Your task to perform on an android device: install app "HBO Max: Stream TV & Movies" Image 0: 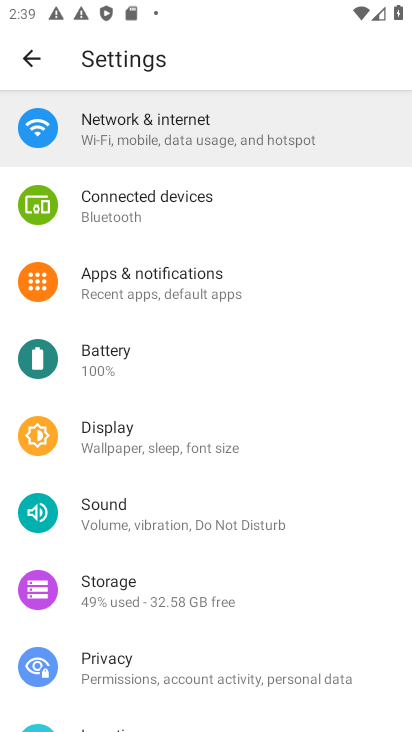
Step 0: press home button
Your task to perform on an android device: install app "HBO Max: Stream TV & Movies" Image 1: 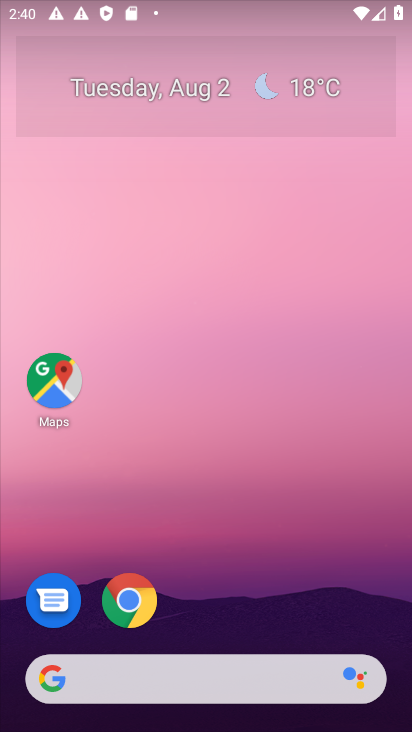
Step 1: drag from (205, 710) to (322, 128)
Your task to perform on an android device: install app "HBO Max: Stream TV & Movies" Image 2: 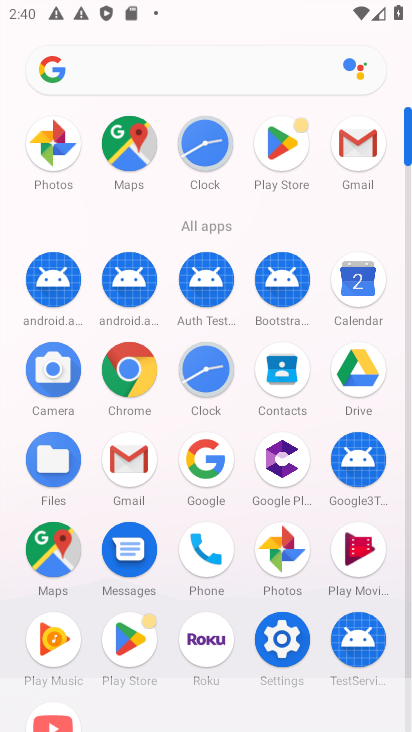
Step 2: click (279, 133)
Your task to perform on an android device: install app "HBO Max: Stream TV & Movies" Image 3: 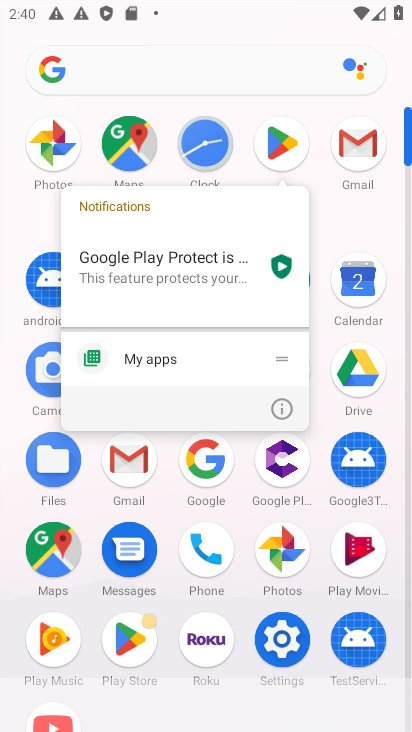
Step 3: click (279, 133)
Your task to perform on an android device: install app "HBO Max: Stream TV & Movies" Image 4: 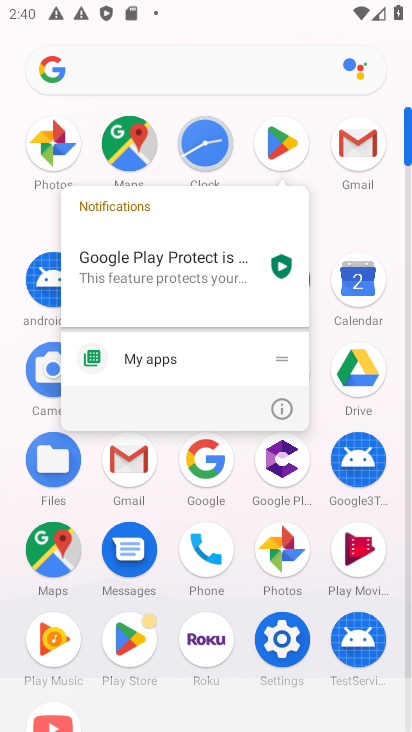
Step 4: click (283, 156)
Your task to perform on an android device: install app "HBO Max: Stream TV & Movies" Image 5: 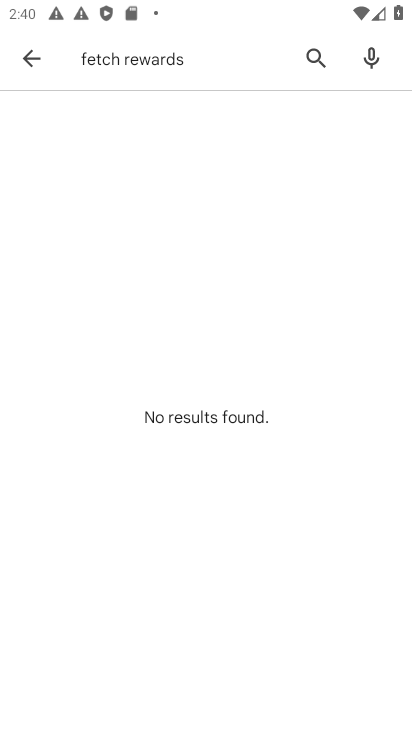
Step 5: click (308, 57)
Your task to perform on an android device: install app "HBO Max: Stream TV & Movies" Image 6: 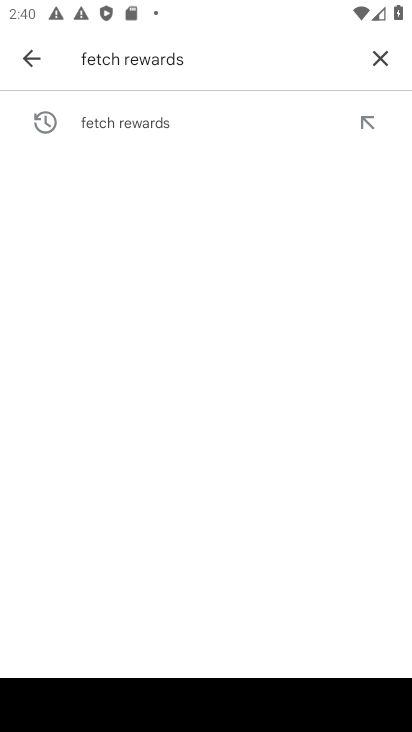
Step 6: click (381, 50)
Your task to perform on an android device: install app "HBO Max: Stream TV & Movies" Image 7: 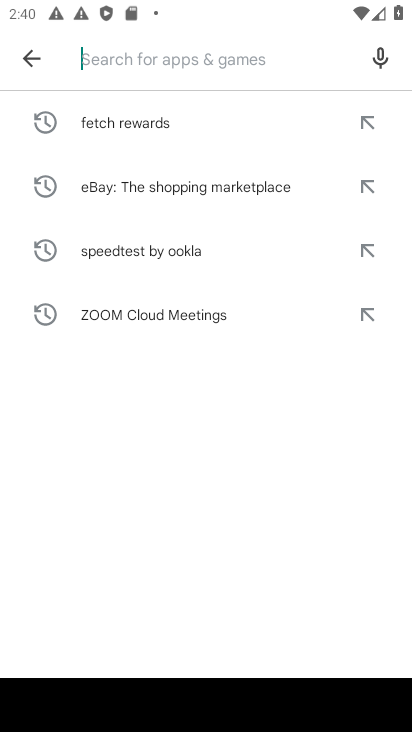
Step 7: type "HBO Max: Stream TV & Movies"
Your task to perform on an android device: install app "HBO Max: Stream TV & Movies" Image 8: 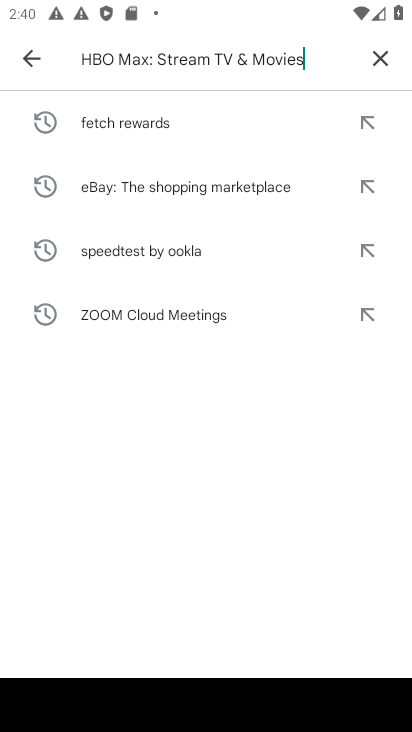
Step 8: type ""
Your task to perform on an android device: install app "HBO Max: Stream TV & Movies" Image 9: 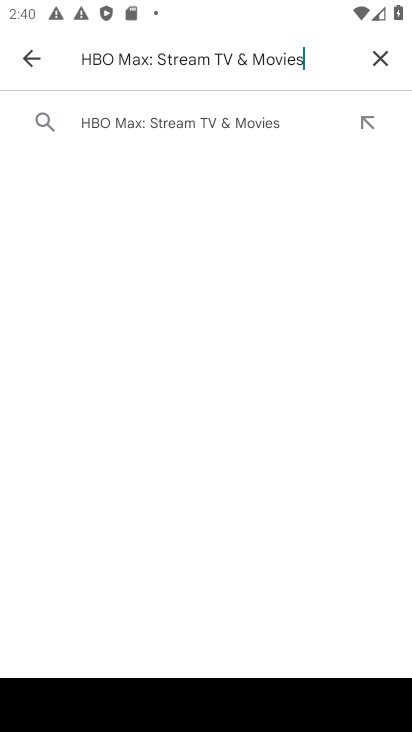
Step 9: click (249, 124)
Your task to perform on an android device: install app "HBO Max: Stream TV & Movies" Image 10: 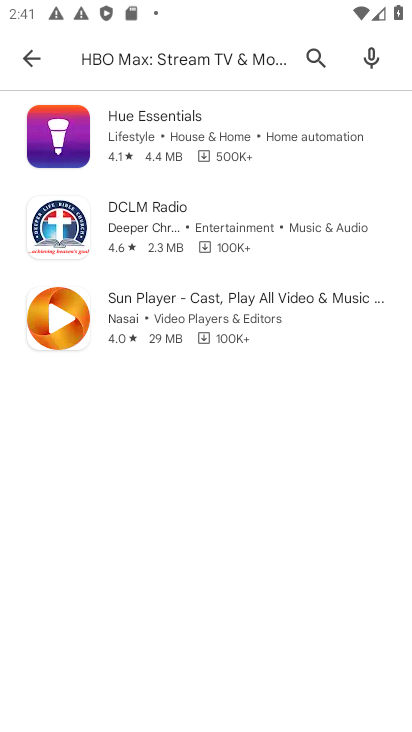
Step 10: task complete